Your task to perform on an android device: search for starred emails in the gmail app Image 0: 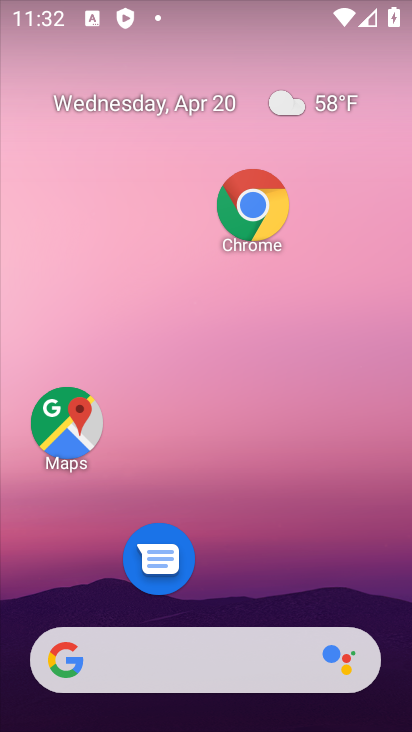
Step 0: drag from (254, 642) to (204, 157)
Your task to perform on an android device: search for starred emails in the gmail app Image 1: 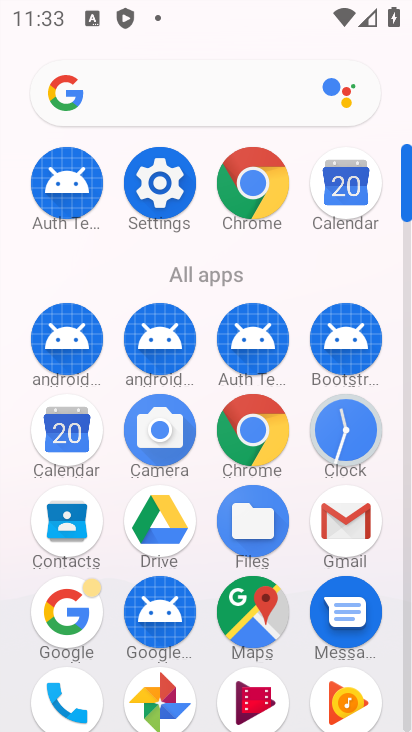
Step 1: click (341, 511)
Your task to perform on an android device: search for starred emails in the gmail app Image 2: 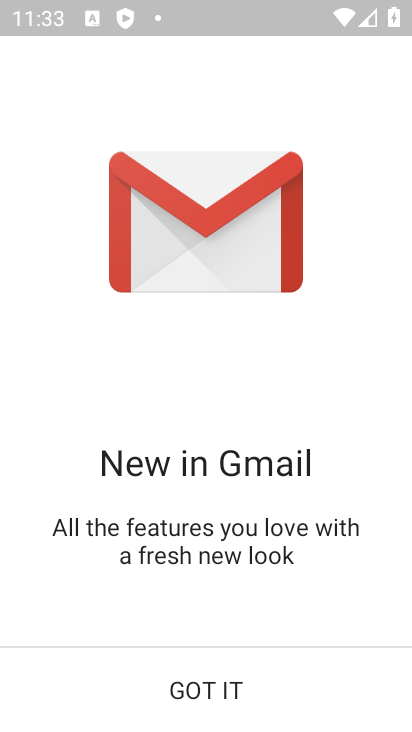
Step 2: click (234, 683)
Your task to perform on an android device: search for starred emails in the gmail app Image 3: 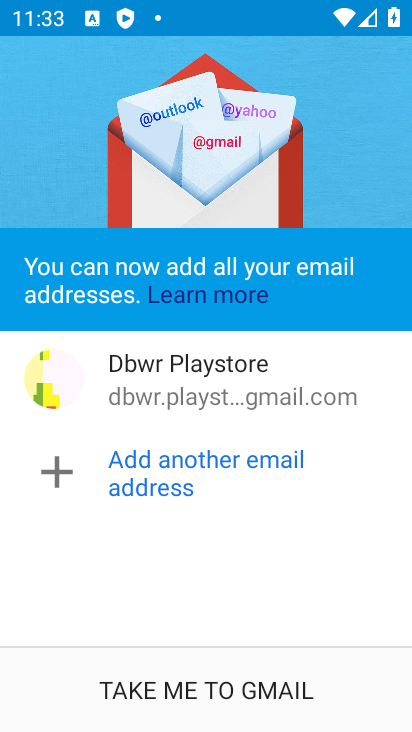
Step 3: click (234, 683)
Your task to perform on an android device: search for starred emails in the gmail app Image 4: 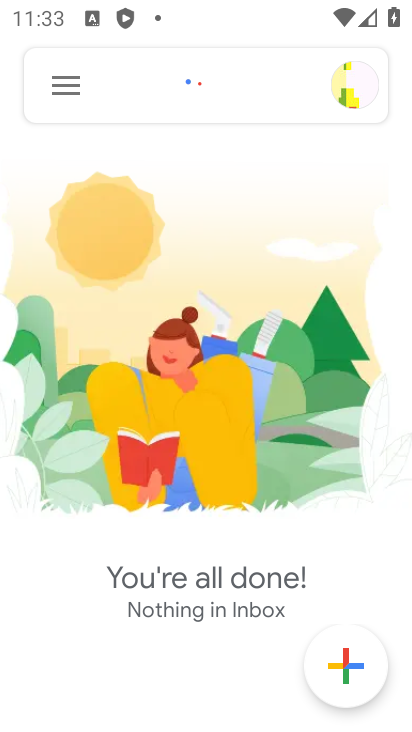
Step 4: click (81, 91)
Your task to perform on an android device: search for starred emails in the gmail app Image 5: 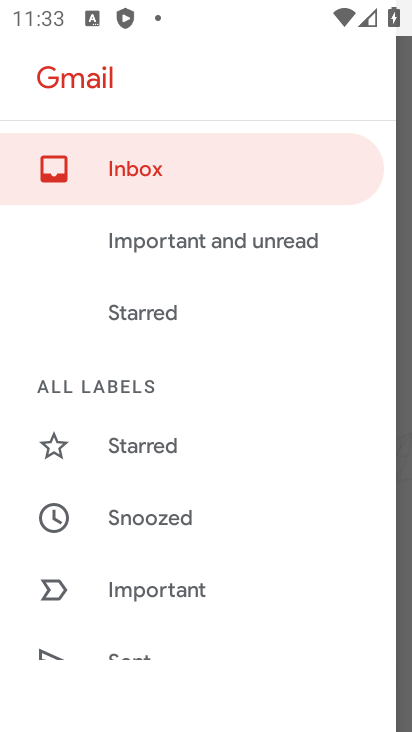
Step 5: click (135, 440)
Your task to perform on an android device: search for starred emails in the gmail app Image 6: 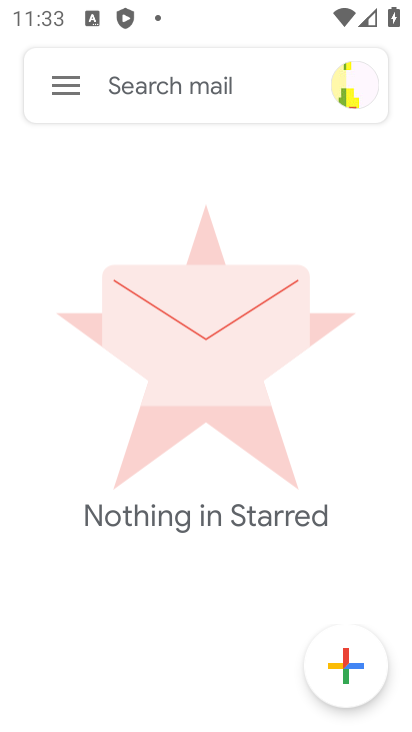
Step 6: task complete